Your task to perform on an android device: create a new album in the google photos Image 0: 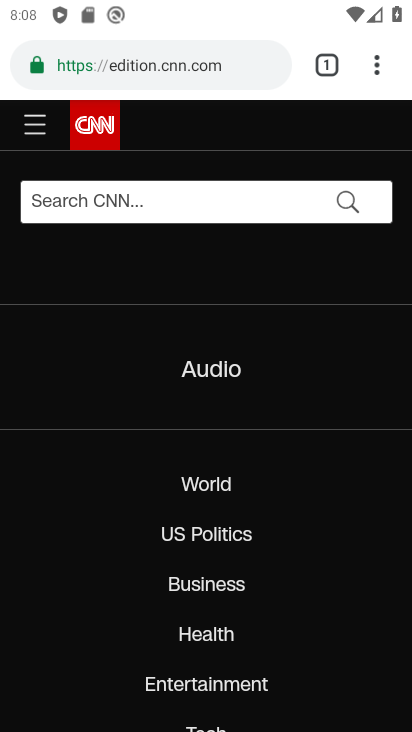
Step 0: press home button
Your task to perform on an android device: create a new album in the google photos Image 1: 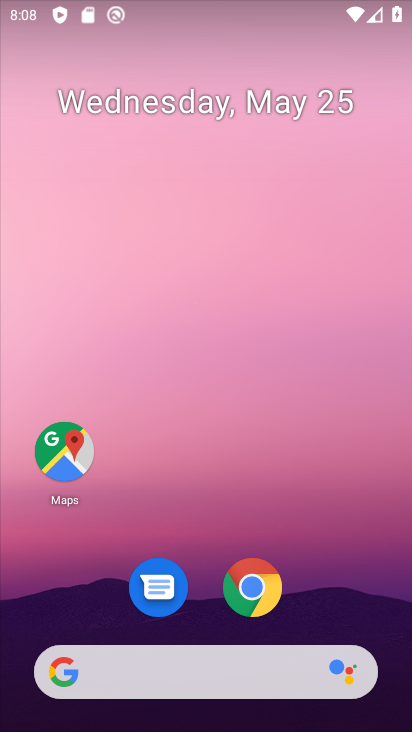
Step 1: drag from (320, 539) to (336, 86)
Your task to perform on an android device: create a new album in the google photos Image 2: 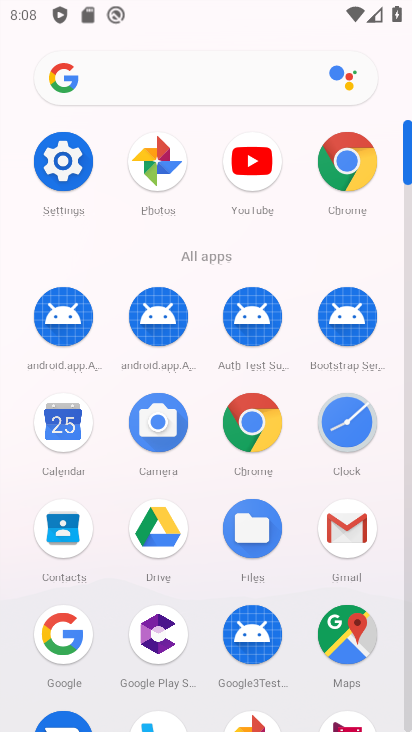
Step 2: click (139, 151)
Your task to perform on an android device: create a new album in the google photos Image 3: 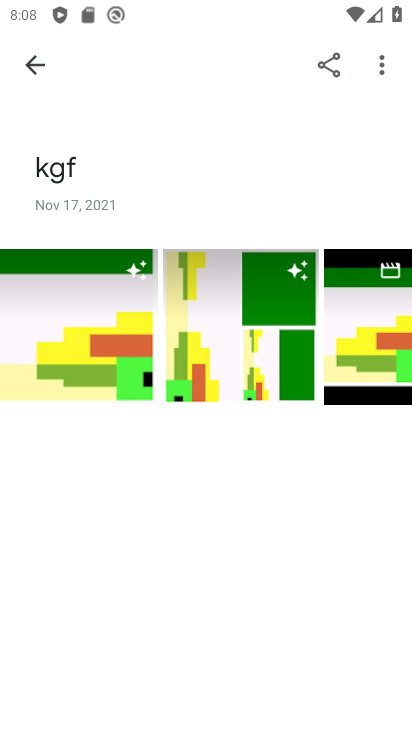
Step 3: click (38, 66)
Your task to perform on an android device: create a new album in the google photos Image 4: 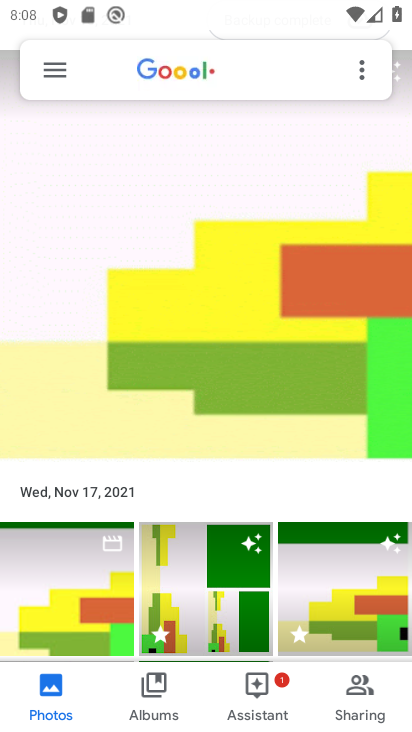
Step 4: drag from (184, 437) to (324, 210)
Your task to perform on an android device: create a new album in the google photos Image 5: 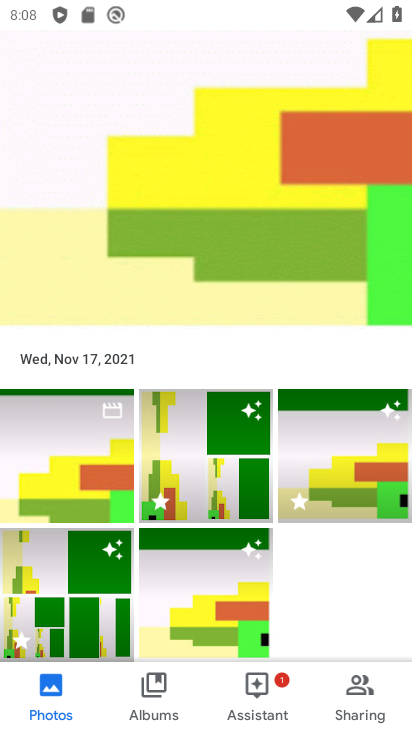
Step 5: click (48, 567)
Your task to perform on an android device: create a new album in the google photos Image 6: 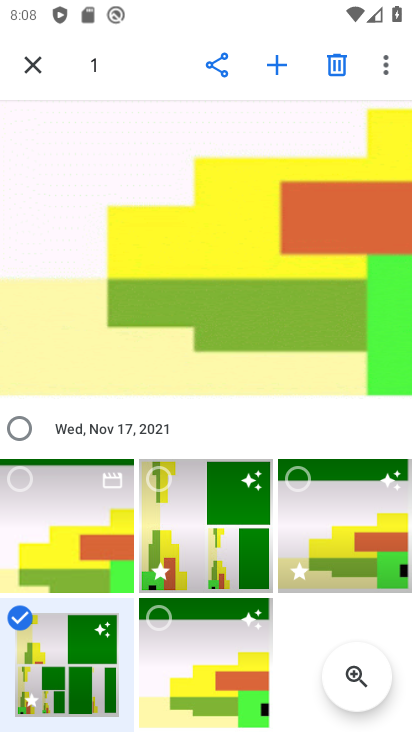
Step 6: click (299, 482)
Your task to perform on an android device: create a new album in the google photos Image 7: 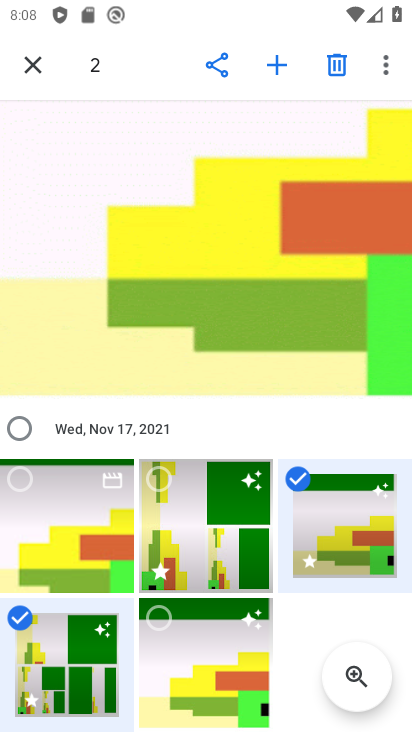
Step 7: click (266, 64)
Your task to perform on an android device: create a new album in the google photos Image 8: 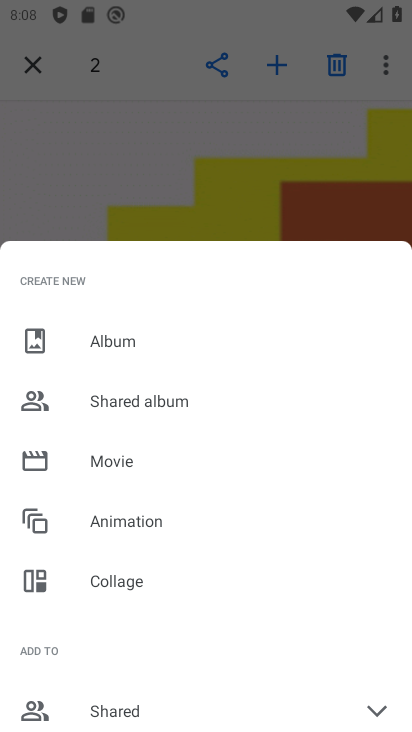
Step 8: click (106, 335)
Your task to perform on an android device: create a new album in the google photos Image 9: 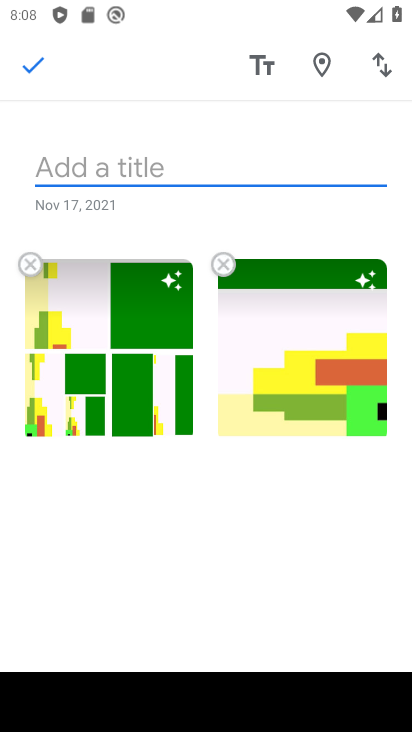
Step 9: type "ffdd"
Your task to perform on an android device: create a new album in the google photos Image 10: 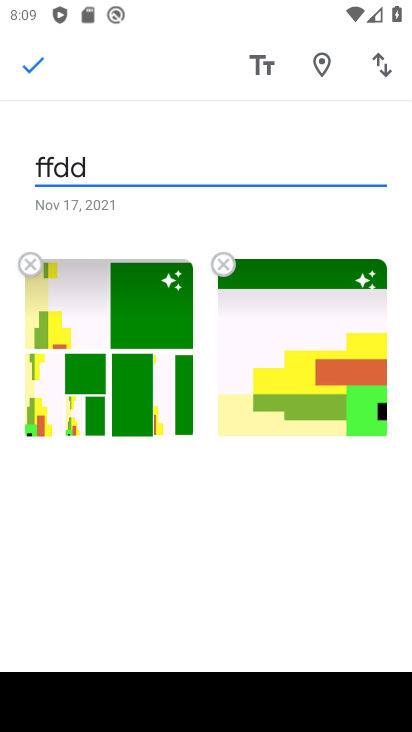
Step 10: click (34, 59)
Your task to perform on an android device: create a new album in the google photos Image 11: 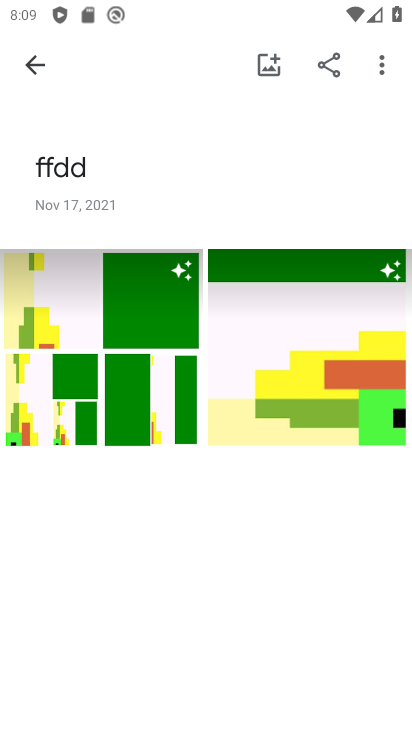
Step 11: task complete